Your task to perform on an android device: turn pop-ups off in chrome Image 0: 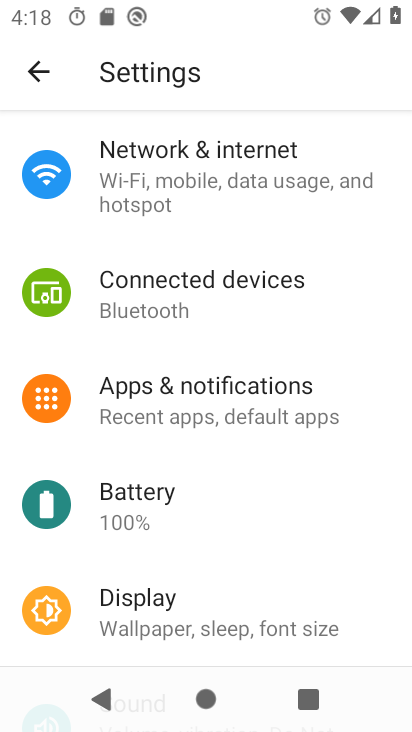
Step 0: press home button
Your task to perform on an android device: turn pop-ups off in chrome Image 1: 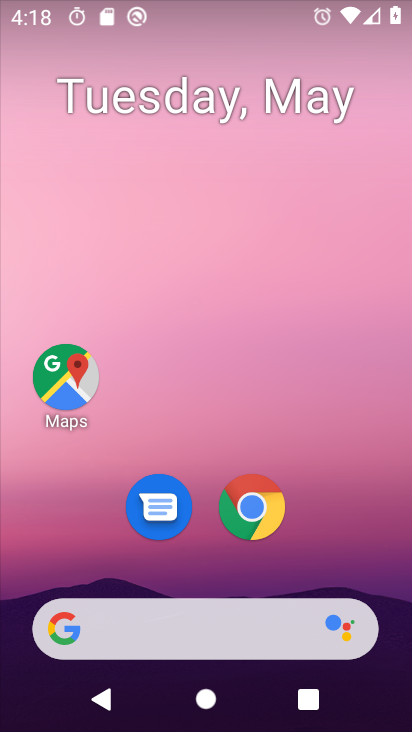
Step 1: click (250, 503)
Your task to perform on an android device: turn pop-ups off in chrome Image 2: 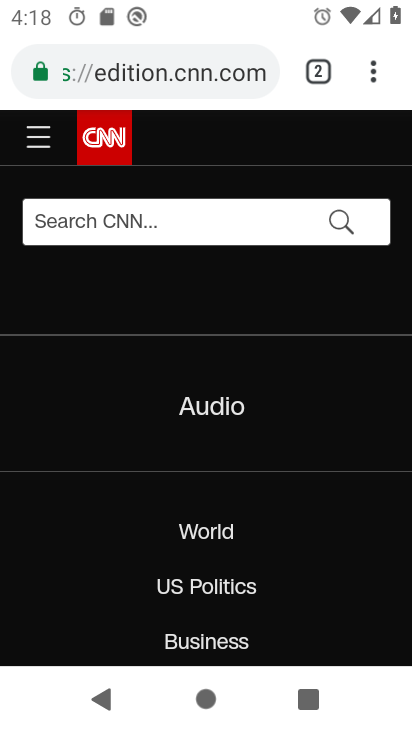
Step 2: click (372, 67)
Your task to perform on an android device: turn pop-ups off in chrome Image 3: 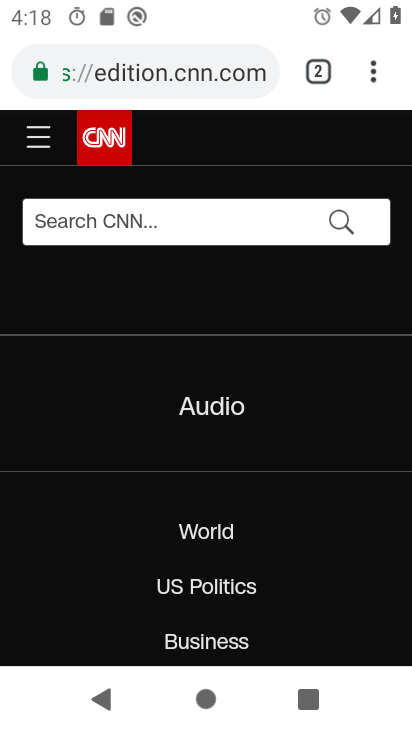
Step 3: click (372, 67)
Your task to perform on an android device: turn pop-ups off in chrome Image 4: 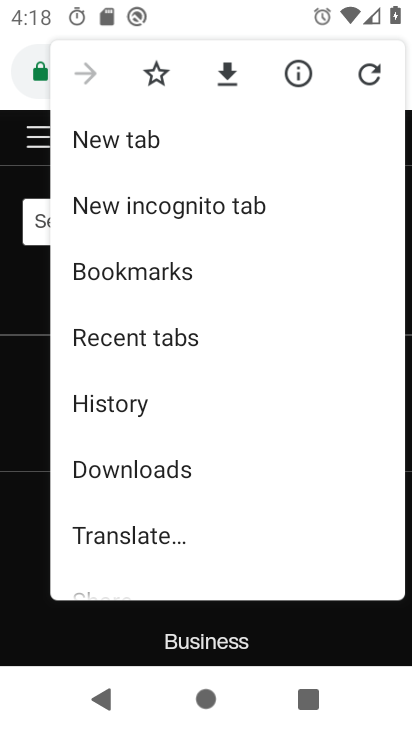
Step 4: drag from (116, 527) to (148, 376)
Your task to perform on an android device: turn pop-ups off in chrome Image 5: 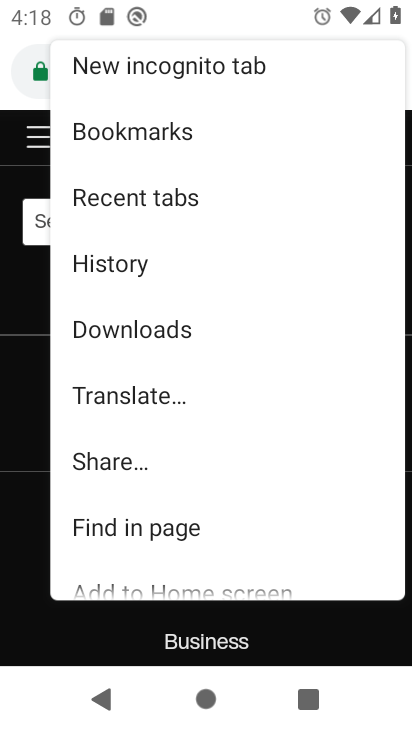
Step 5: drag from (206, 532) to (336, 0)
Your task to perform on an android device: turn pop-ups off in chrome Image 6: 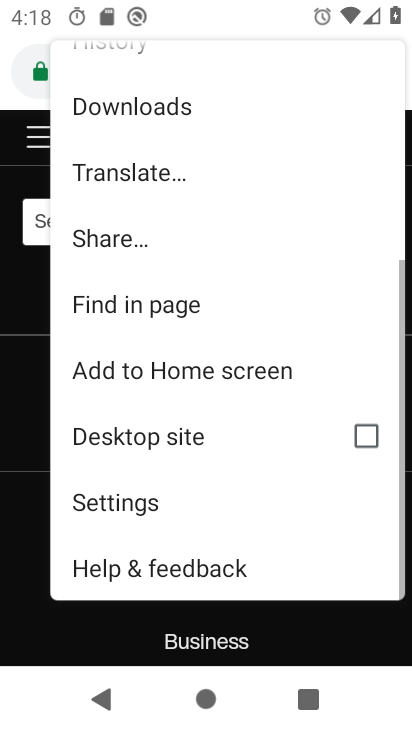
Step 6: click (254, 510)
Your task to perform on an android device: turn pop-ups off in chrome Image 7: 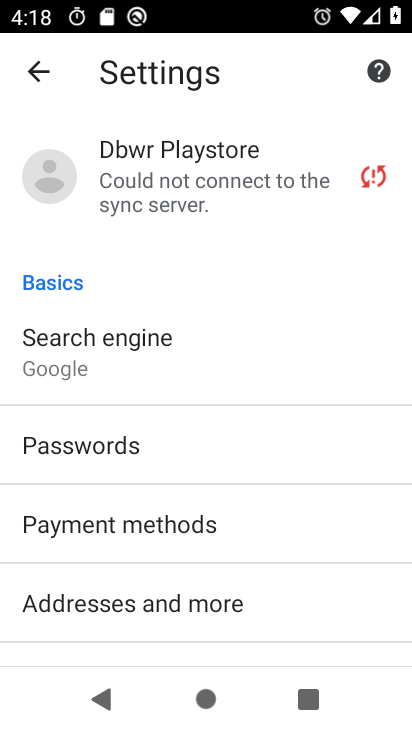
Step 7: drag from (187, 564) to (223, 145)
Your task to perform on an android device: turn pop-ups off in chrome Image 8: 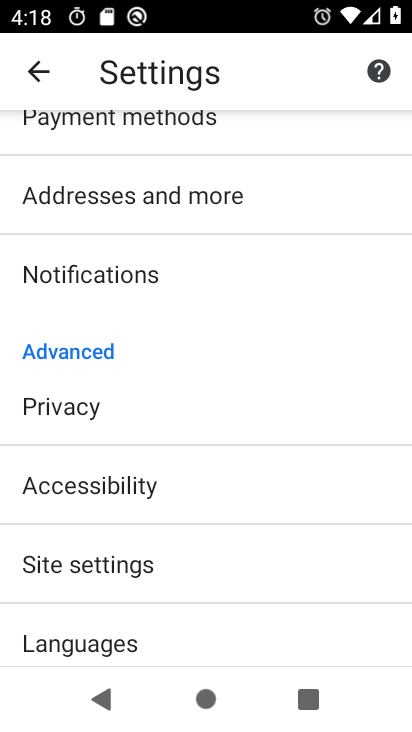
Step 8: click (183, 584)
Your task to perform on an android device: turn pop-ups off in chrome Image 9: 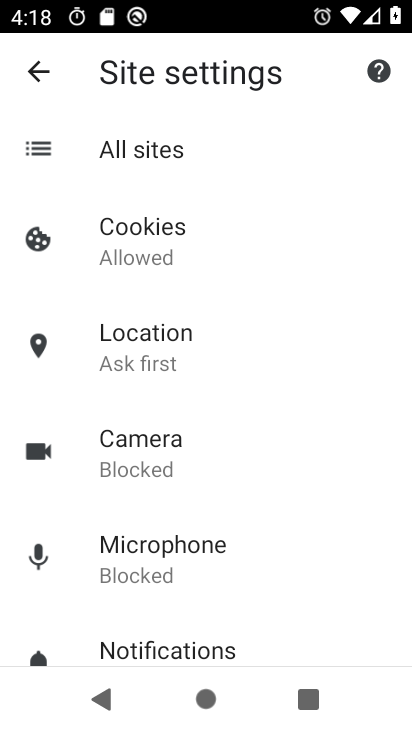
Step 9: drag from (174, 586) to (191, 499)
Your task to perform on an android device: turn pop-ups off in chrome Image 10: 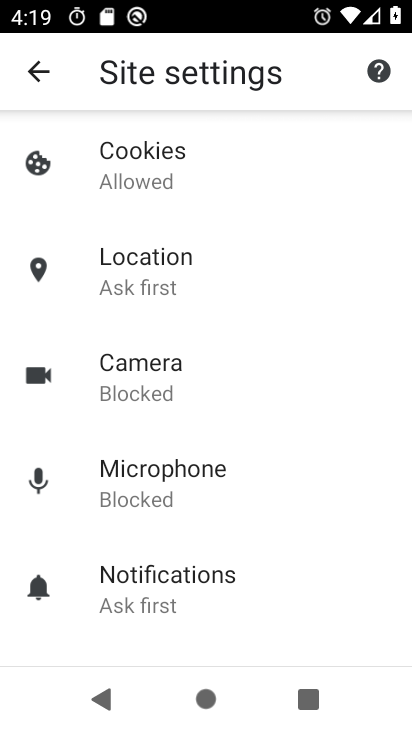
Step 10: drag from (187, 600) to (230, 456)
Your task to perform on an android device: turn pop-ups off in chrome Image 11: 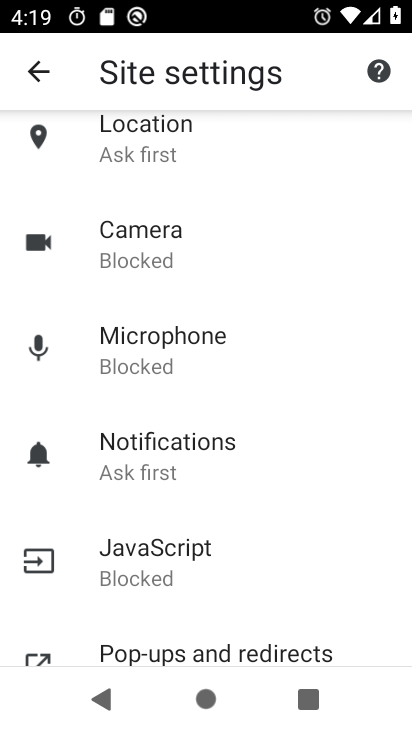
Step 11: drag from (174, 645) to (201, 591)
Your task to perform on an android device: turn pop-ups off in chrome Image 12: 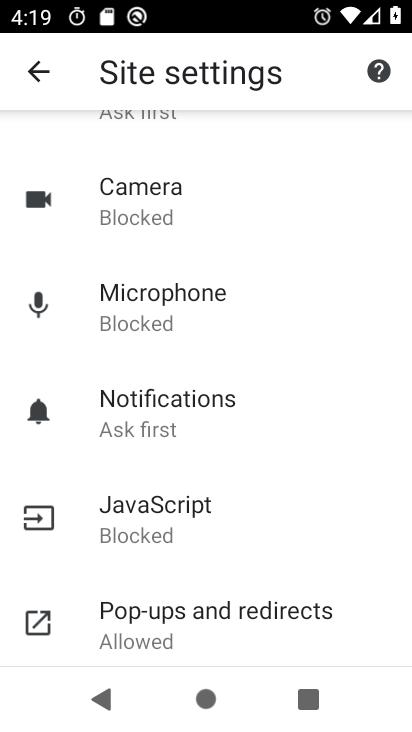
Step 12: click (190, 627)
Your task to perform on an android device: turn pop-ups off in chrome Image 13: 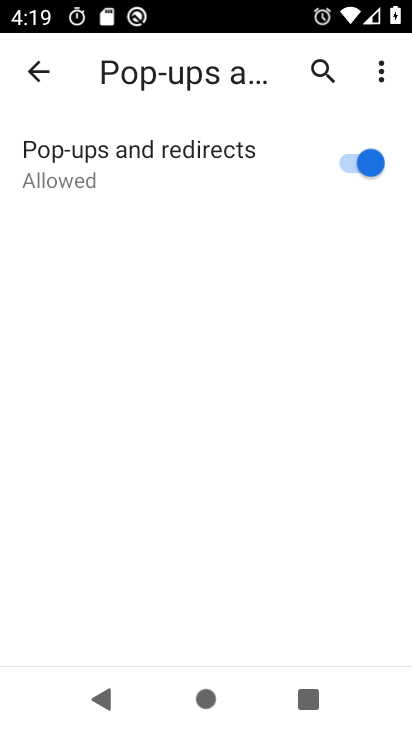
Step 13: click (350, 168)
Your task to perform on an android device: turn pop-ups off in chrome Image 14: 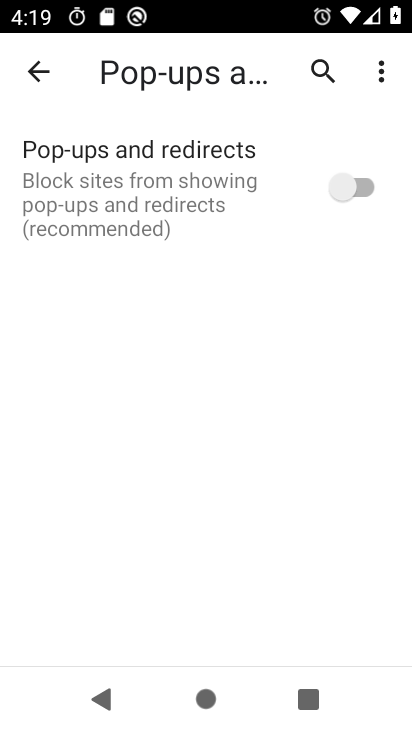
Step 14: task complete